Your task to perform on an android device: open the mobile data screen to see how much data has been used Image 0: 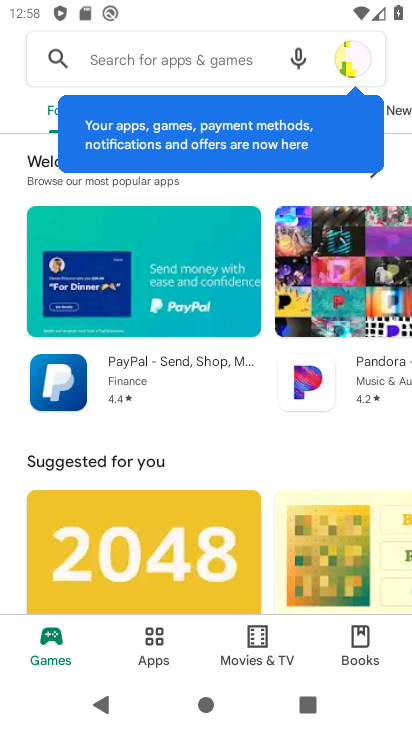
Step 0: press back button
Your task to perform on an android device: open the mobile data screen to see how much data has been used Image 1: 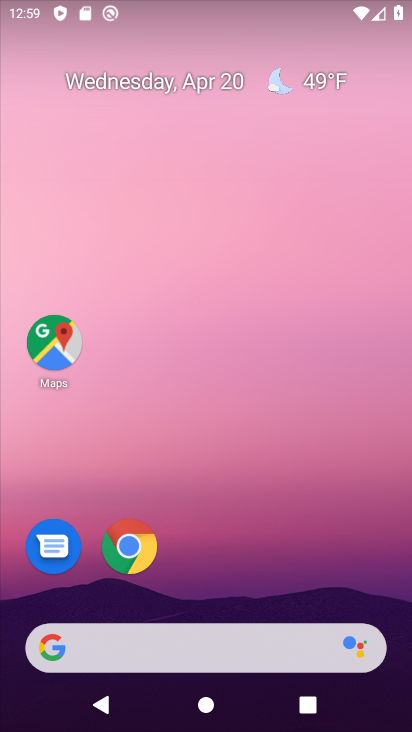
Step 1: drag from (262, 478) to (304, 71)
Your task to perform on an android device: open the mobile data screen to see how much data has been used Image 2: 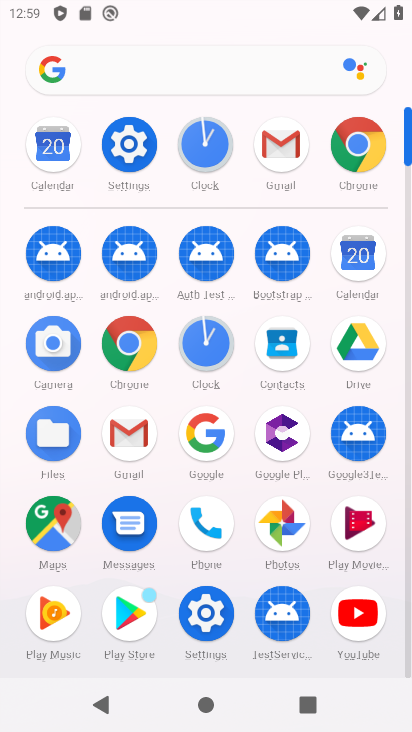
Step 2: click (125, 141)
Your task to perform on an android device: open the mobile data screen to see how much data has been used Image 3: 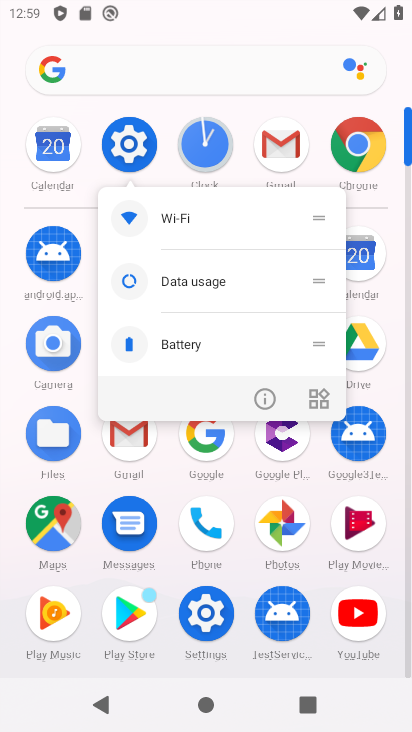
Step 3: click (138, 135)
Your task to perform on an android device: open the mobile data screen to see how much data has been used Image 4: 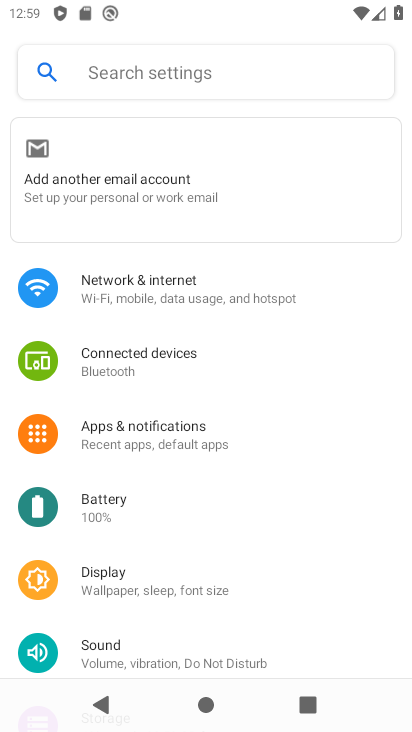
Step 4: click (194, 292)
Your task to perform on an android device: open the mobile data screen to see how much data has been used Image 5: 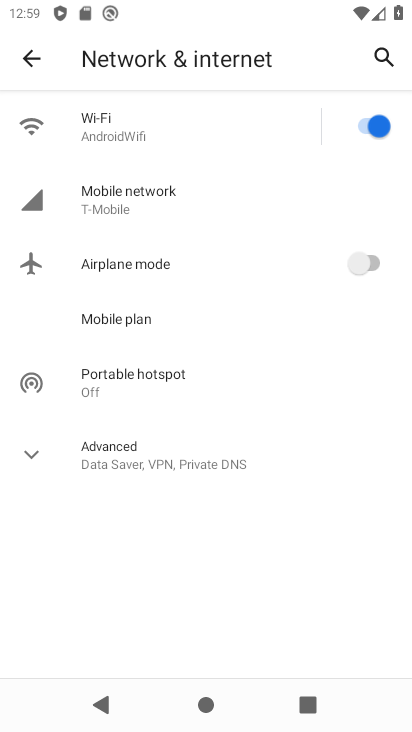
Step 5: click (166, 185)
Your task to perform on an android device: open the mobile data screen to see how much data has been used Image 6: 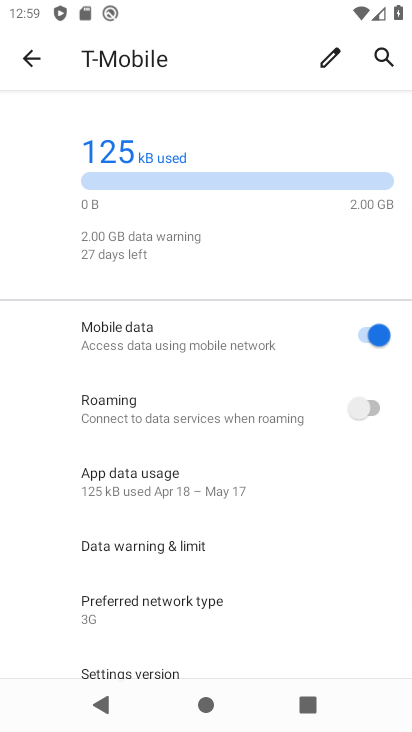
Step 6: click (134, 494)
Your task to perform on an android device: open the mobile data screen to see how much data has been used Image 7: 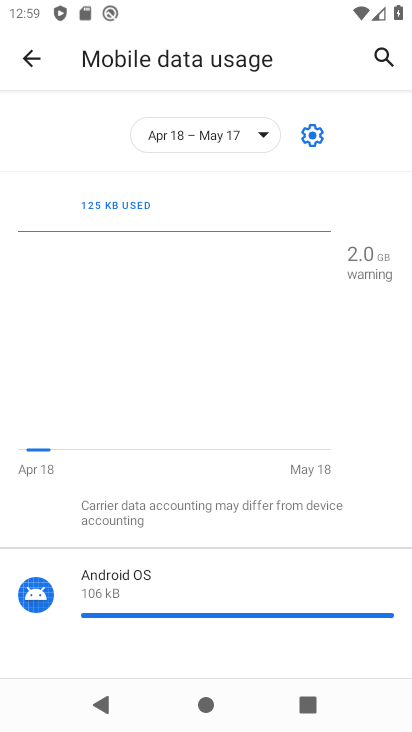
Step 7: task complete